Your task to perform on an android device: Show me productivity apps on the Play Store Image 0: 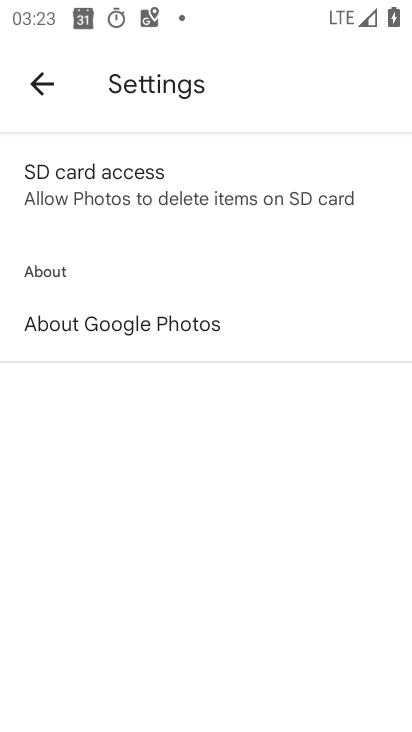
Step 0: press home button
Your task to perform on an android device: Show me productivity apps on the Play Store Image 1: 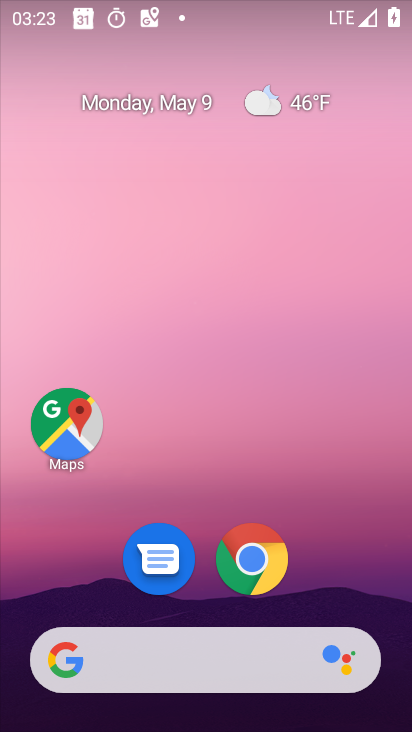
Step 1: drag from (358, 473) to (332, 162)
Your task to perform on an android device: Show me productivity apps on the Play Store Image 2: 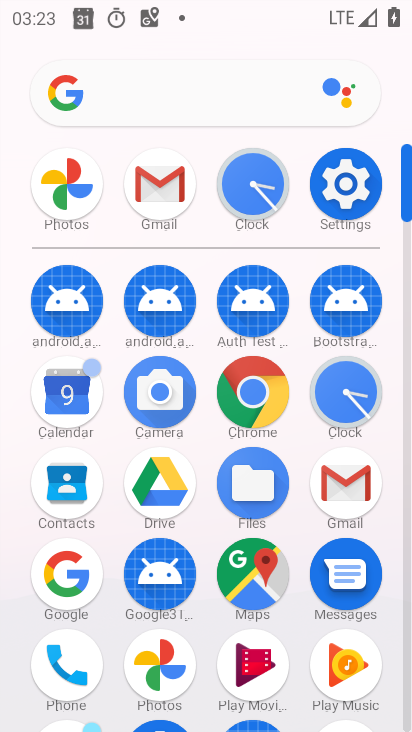
Step 2: drag from (304, 613) to (306, 345)
Your task to perform on an android device: Show me productivity apps on the Play Store Image 3: 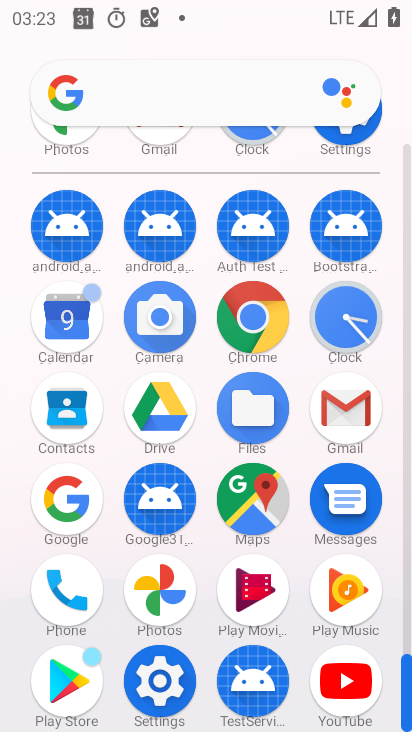
Step 3: click (59, 673)
Your task to perform on an android device: Show me productivity apps on the Play Store Image 4: 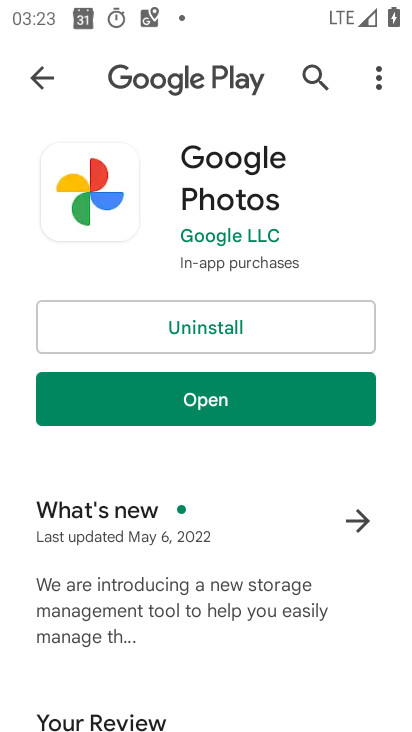
Step 4: click (40, 79)
Your task to perform on an android device: Show me productivity apps on the Play Store Image 5: 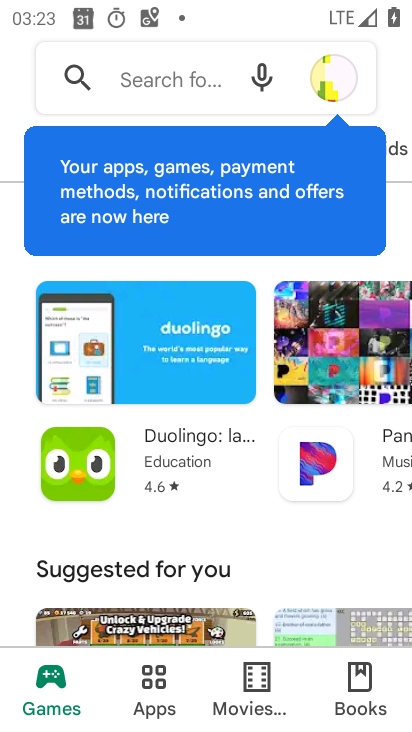
Step 5: drag from (395, 134) to (116, 118)
Your task to perform on an android device: Show me productivity apps on the Play Store Image 6: 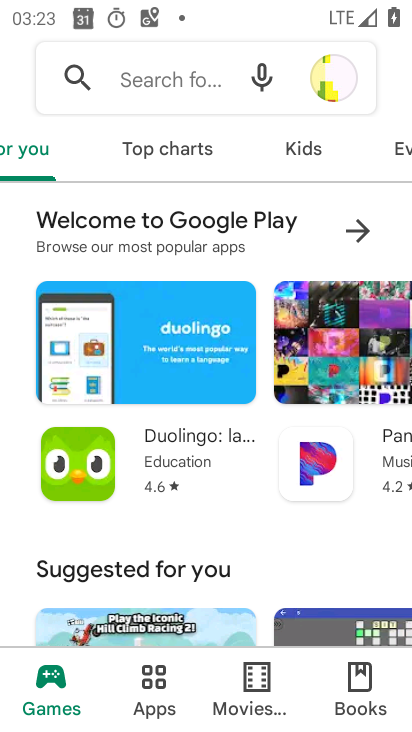
Step 6: drag from (397, 145) to (205, 160)
Your task to perform on an android device: Show me productivity apps on the Play Store Image 7: 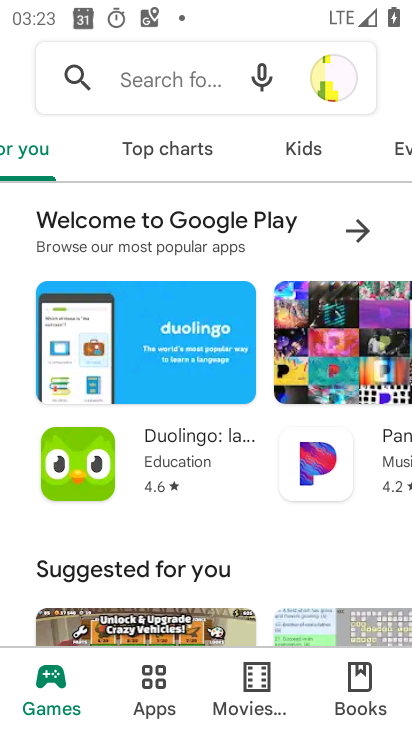
Step 7: drag from (316, 140) to (8, 145)
Your task to perform on an android device: Show me productivity apps on the Play Store Image 8: 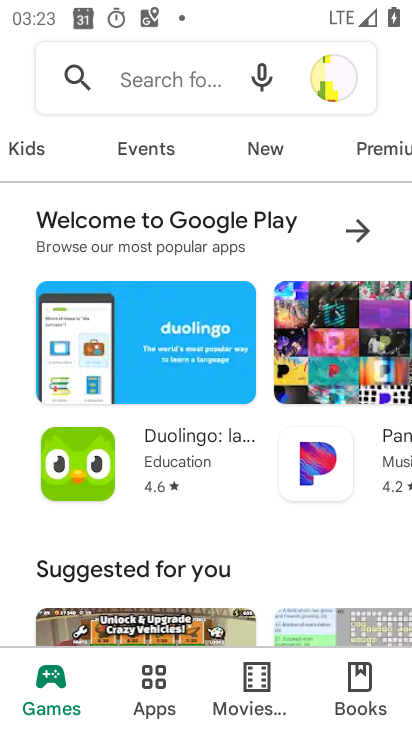
Step 8: drag from (375, 148) to (102, 173)
Your task to perform on an android device: Show me productivity apps on the Play Store Image 9: 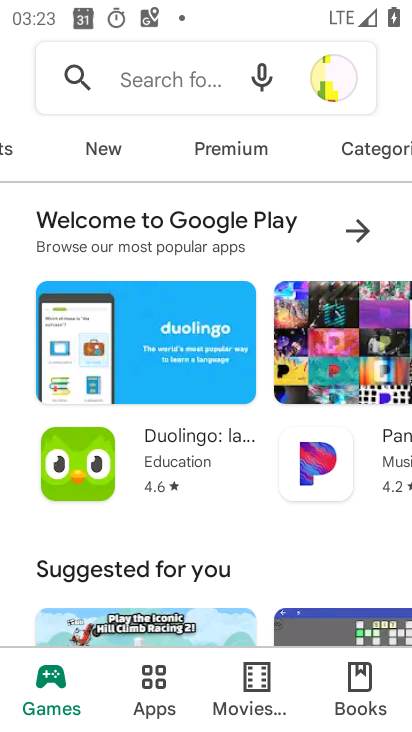
Step 9: drag from (383, 148) to (86, 163)
Your task to perform on an android device: Show me productivity apps on the Play Store Image 10: 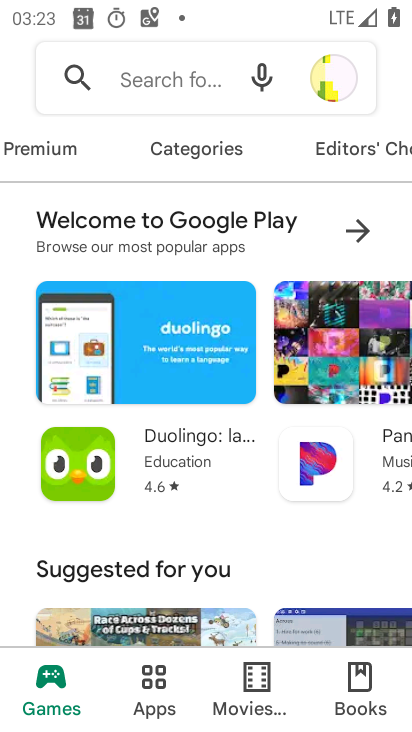
Step 10: drag from (351, 145) to (111, 153)
Your task to perform on an android device: Show me productivity apps on the Play Store Image 11: 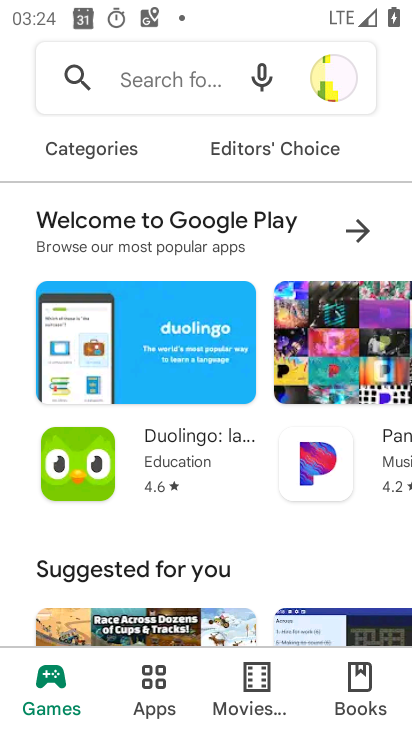
Step 11: drag from (295, 146) to (76, 165)
Your task to perform on an android device: Show me productivity apps on the Play Store Image 12: 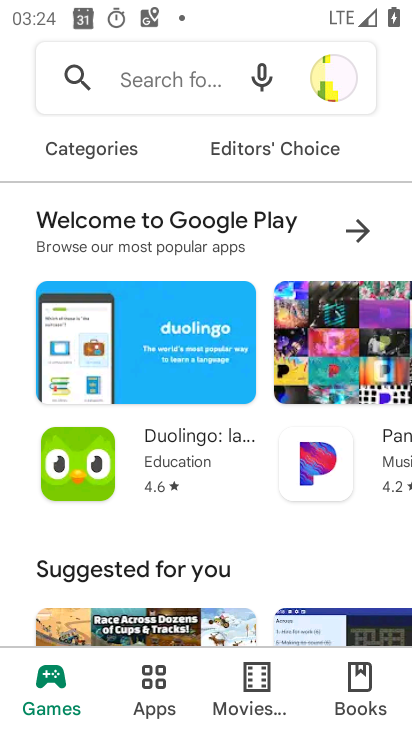
Step 12: click (154, 700)
Your task to perform on an android device: Show me productivity apps on the Play Store Image 13: 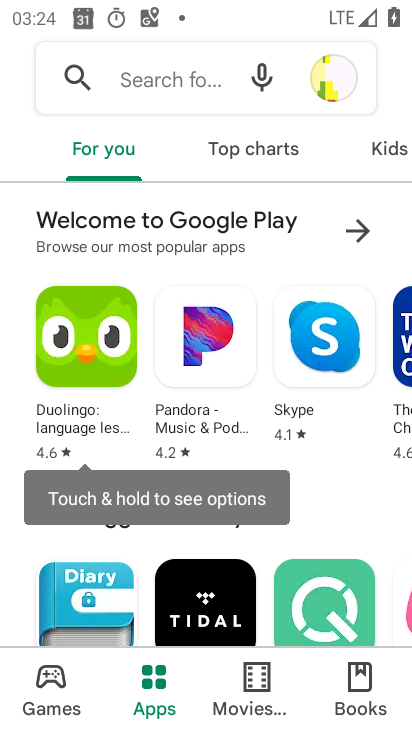
Step 13: drag from (345, 147) to (76, 130)
Your task to perform on an android device: Show me productivity apps on the Play Store Image 14: 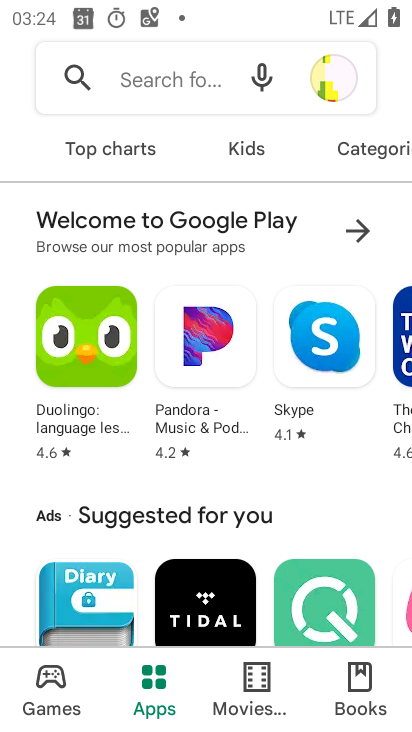
Step 14: click (362, 145)
Your task to perform on an android device: Show me productivity apps on the Play Store Image 15: 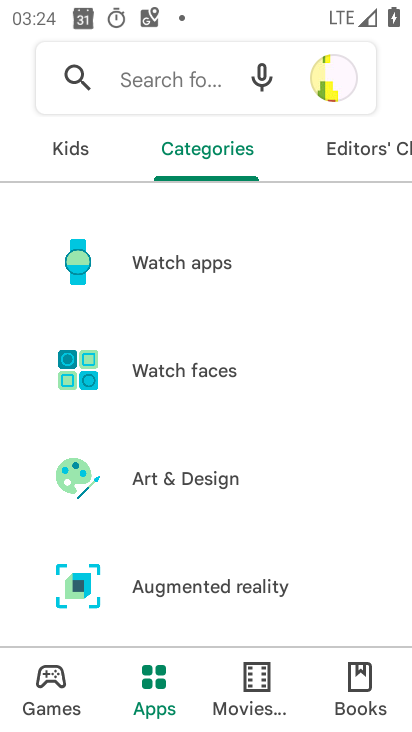
Step 15: drag from (196, 443) to (235, 214)
Your task to perform on an android device: Show me productivity apps on the Play Store Image 16: 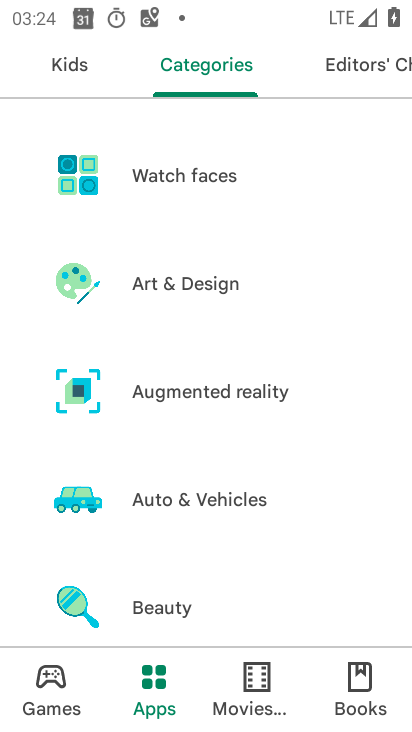
Step 16: drag from (172, 433) to (203, 160)
Your task to perform on an android device: Show me productivity apps on the Play Store Image 17: 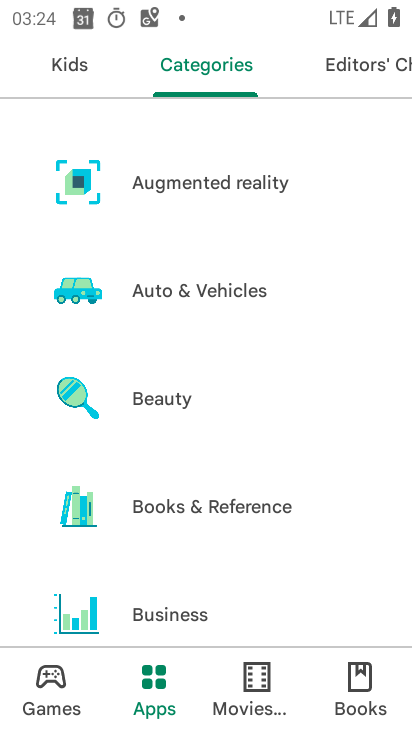
Step 17: drag from (187, 449) to (180, 174)
Your task to perform on an android device: Show me productivity apps on the Play Store Image 18: 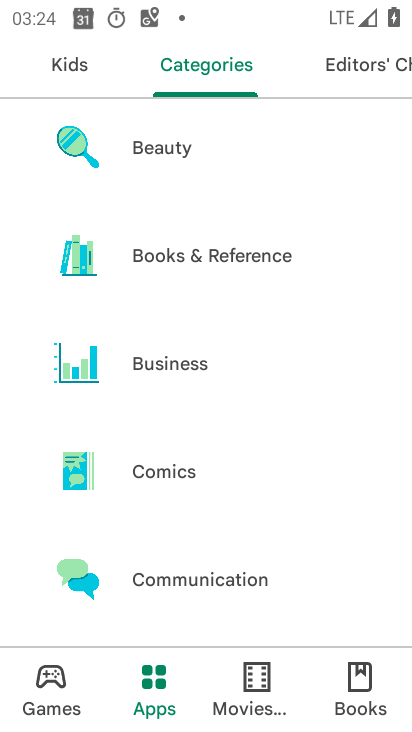
Step 18: drag from (143, 319) to (205, 91)
Your task to perform on an android device: Show me productivity apps on the Play Store Image 19: 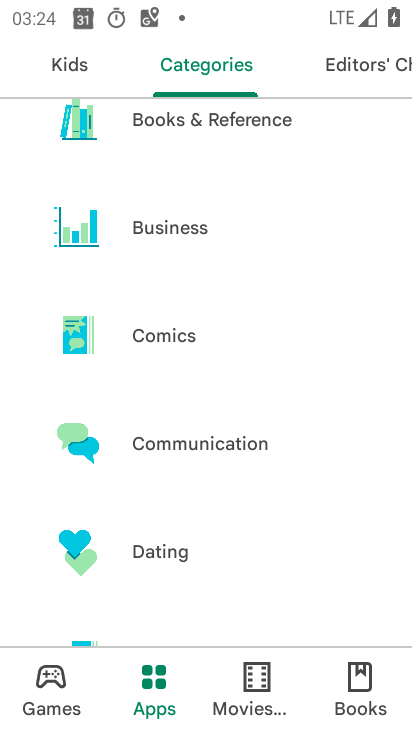
Step 19: drag from (174, 285) to (208, 72)
Your task to perform on an android device: Show me productivity apps on the Play Store Image 20: 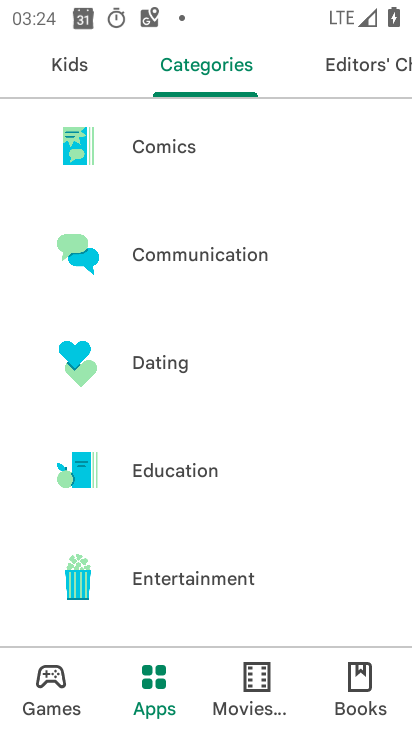
Step 20: drag from (163, 211) to (189, 5)
Your task to perform on an android device: Show me productivity apps on the Play Store Image 21: 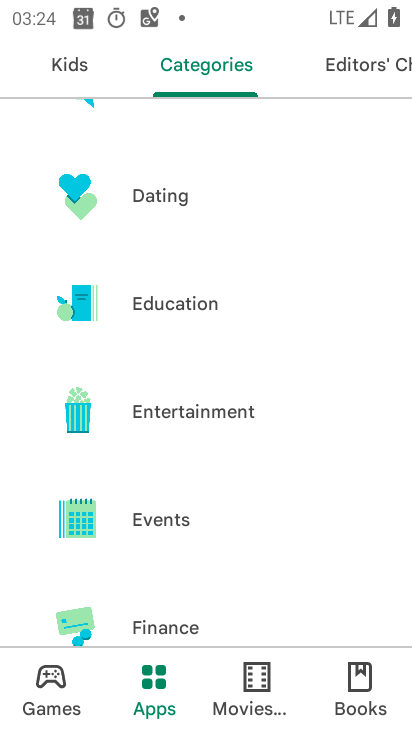
Step 21: drag from (168, 253) to (212, 4)
Your task to perform on an android device: Show me productivity apps on the Play Store Image 22: 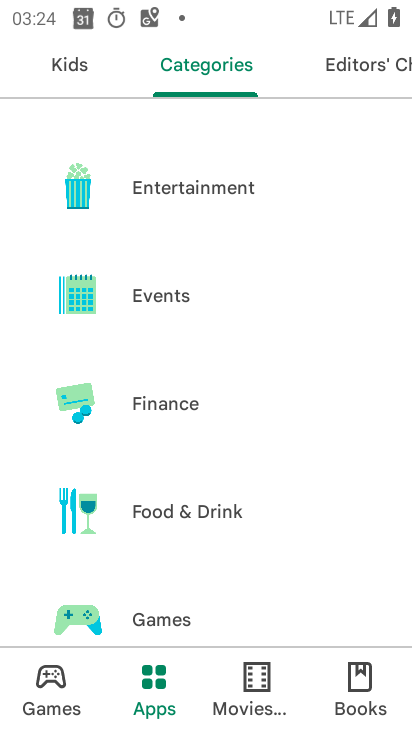
Step 22: drag from (166, 244) to (193, 56)
Your task to perform on an android device: Show me productivity apps on the Play Store Image 23: 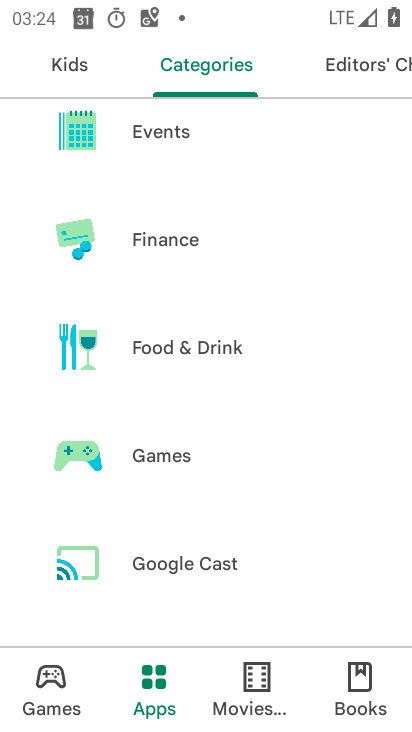
Step 23: drag from (183, 289) to (184, 85)
Your task to perform on an android device: Show me productivity apps on the Play Store Image 24: 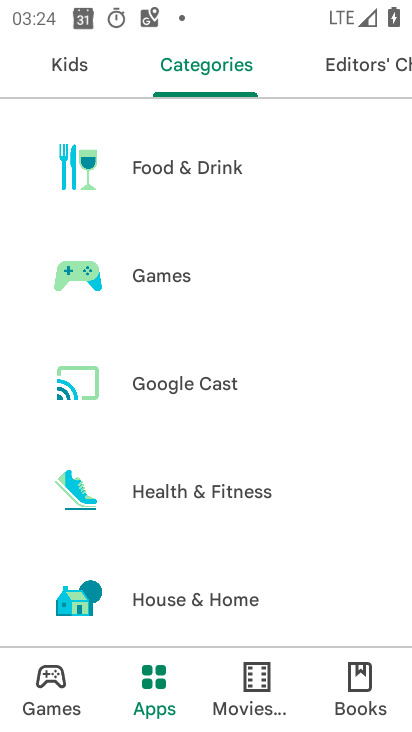
Step 24: drag from (193, 421) to (192, 167)
Your task to perform on an android device: Show me productivity apps on the Play Store Image 25: 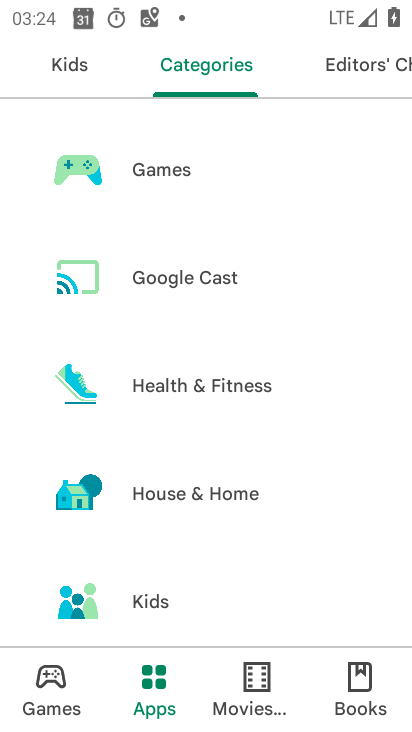
Step 25: drag from (220, 452) to (195, 127)
Your task to perform on an android device: Show me productivity apps on the Play Store Image 26: 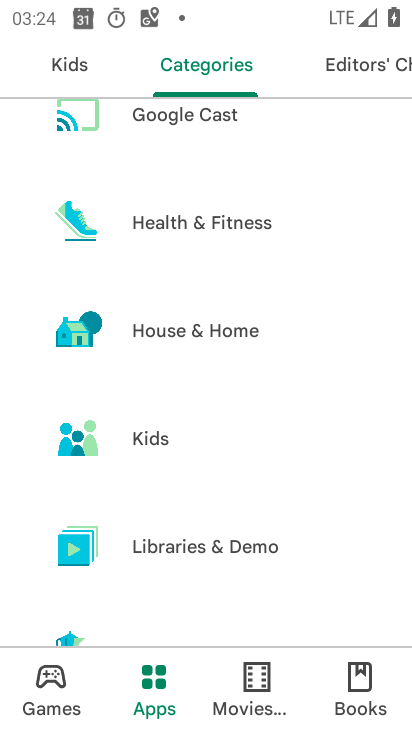
Step 26: drag from (209, 502) to (158, 207)
Your task to perform on an android device: Show me productivity apps on the Play Store Image 27: 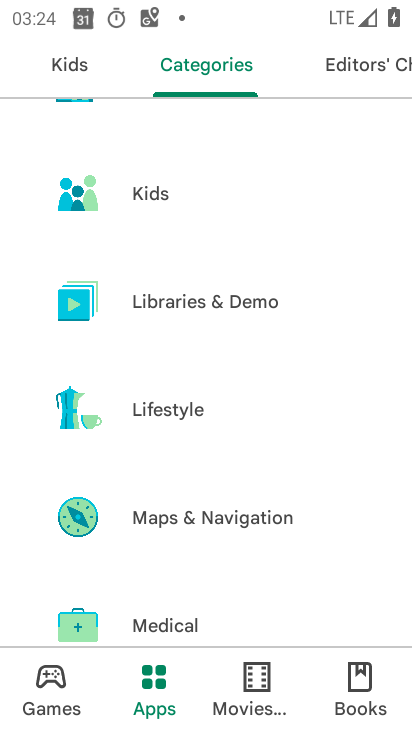
Step 27: drag from (178, 460) to (214, 231)
Your task to perform on an android device: Show me productivity apps on the Play Store Image 28: 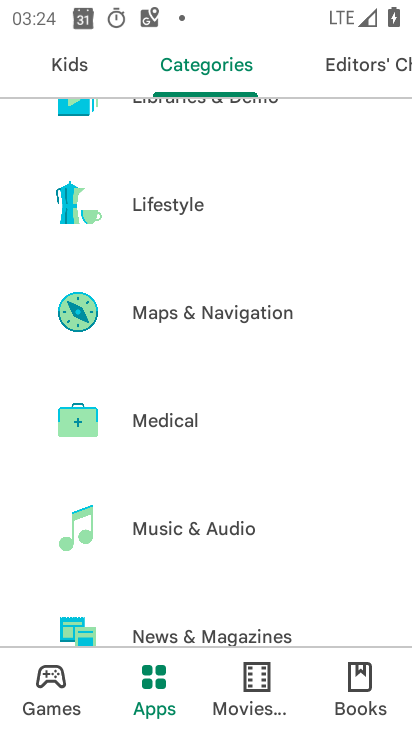
Step 28: drag from (184, 489) to (180, 271)
Your task to perform on an android device: Show me productivity apps on the Play Store Image 29: 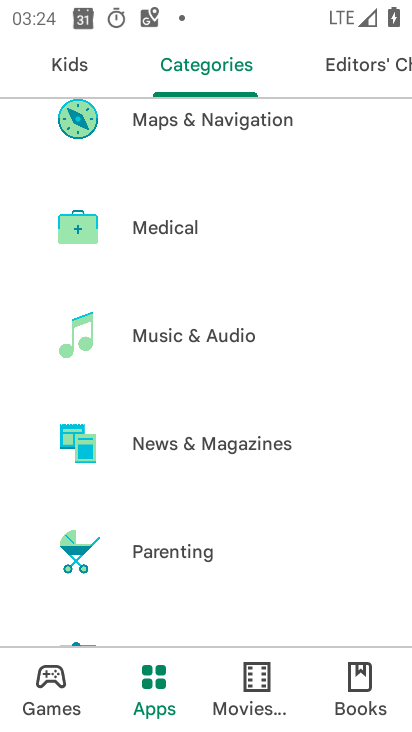
Step 29: drag from (169, 506) to (232, 273)
Your task to perform on an android device: Show me productivity apps on the Play Store Image 30: 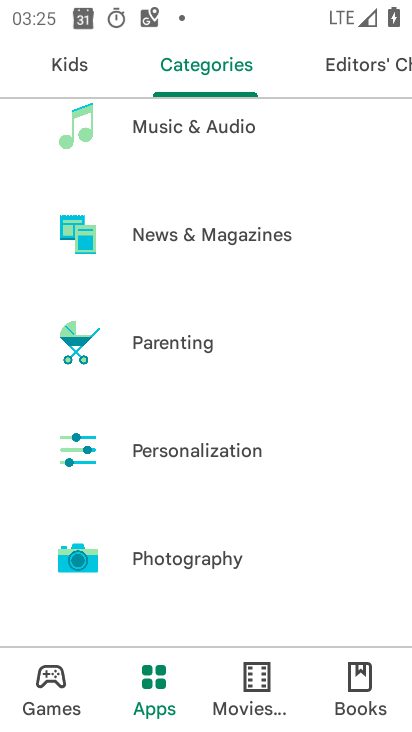
Step 30: drag from (184, 500) to (181, 249)
Your task to perform on an android device: Show me productivity apps on the Play Store Image 31: 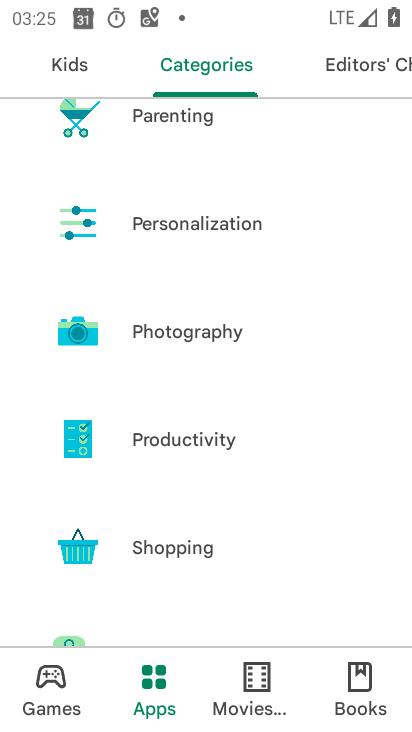
Step 31: click (199, 436)
Your task to perform on an android device: Show me productivity apps on the Play Store Image 32: 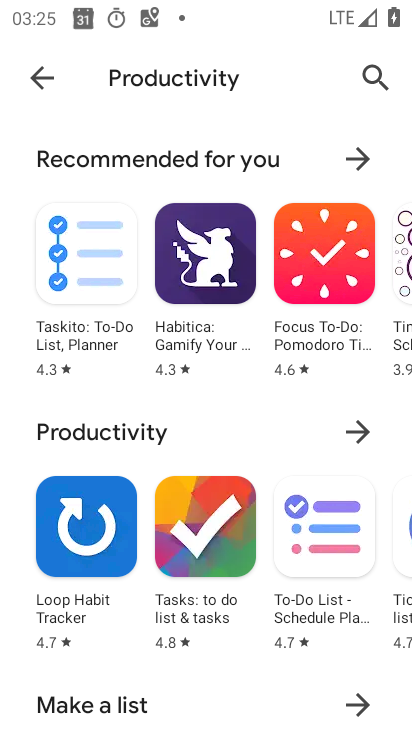
Step 32: task complete